Your task to perform on an android device: change your default location settings in chrome Image 0: 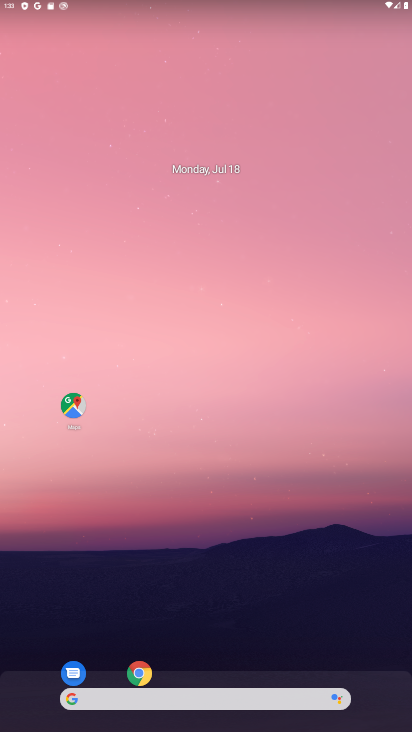
Step 0: click (140, 672)
Your task to perform on an android device: change your default location settings in chrome Image 1: 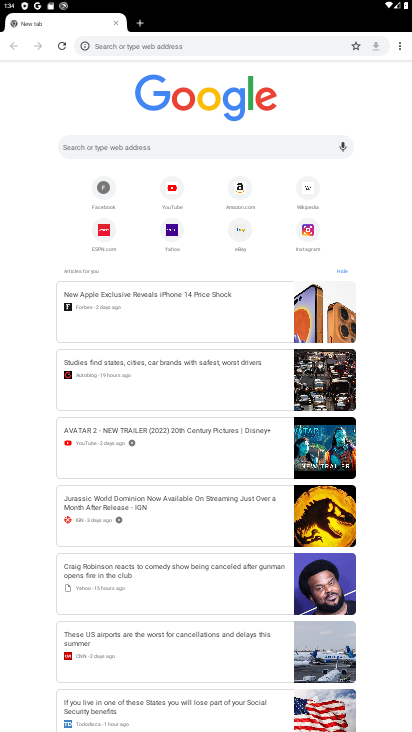
Step 1: click (401, 48)
Your task to perform on an android device: change your default location settings in chrome Image 2: 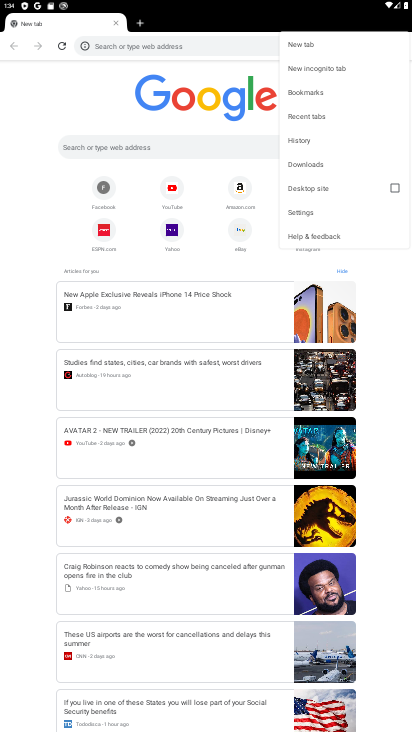
Step 2: click (313, 210)
Your task to perform on an android device: change your default location settings in chrome Image 3: 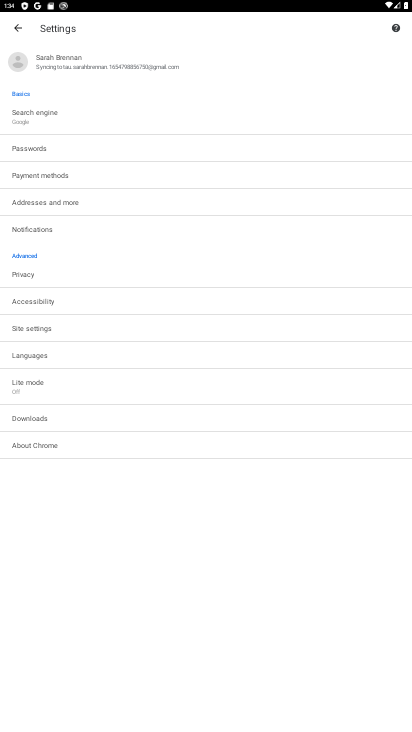
Step 3: click (31, 328)
Your task to perform on an android device: change your default location settings in chrome Image 4: 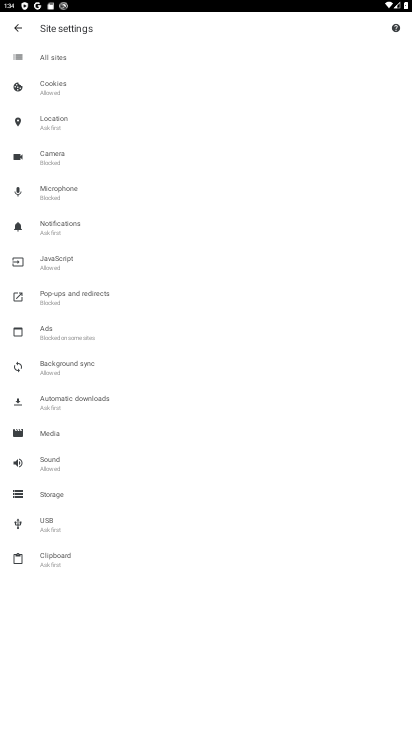
Step 4: click (52, 124)
Your task to perform on an android device: change your default location settings in chrome Image 5: 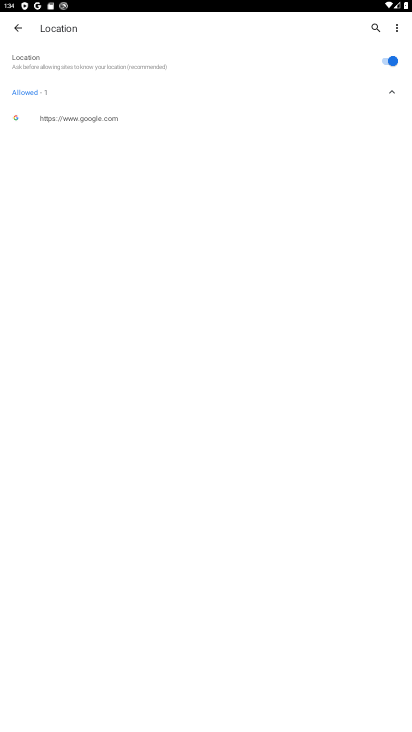
Step 5: click (395, 63)
Your task to perform on an android device: change your default location settings in chrome Image 6: 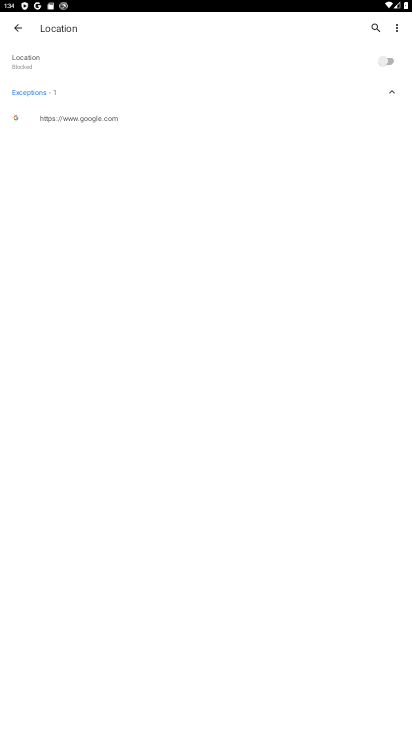
Step 6: task complete